Your task to perform on an android device: set the timer Image 0: 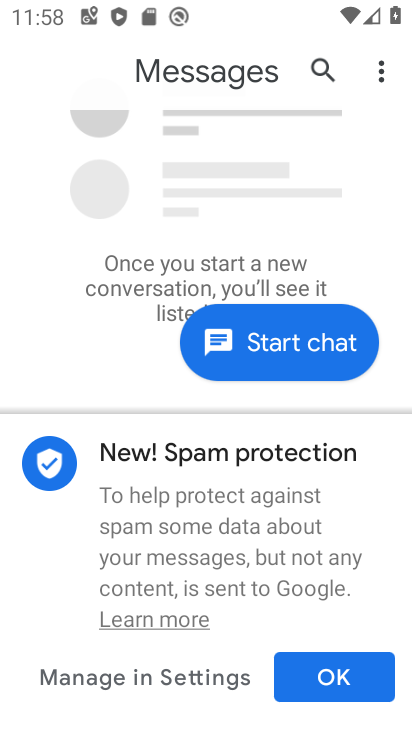
Step 0: press home button
Your task to perform on an android device: set the timer Image 1: 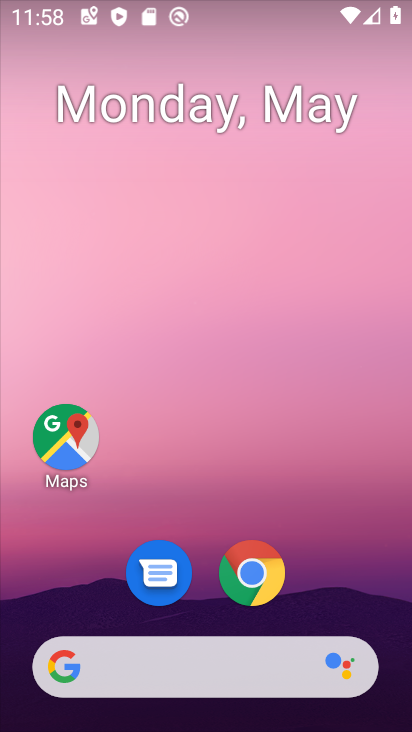
Step 1: drag from (178, 658) to (238, 11)
Your task to perform on an android device: set the timer Image 2: 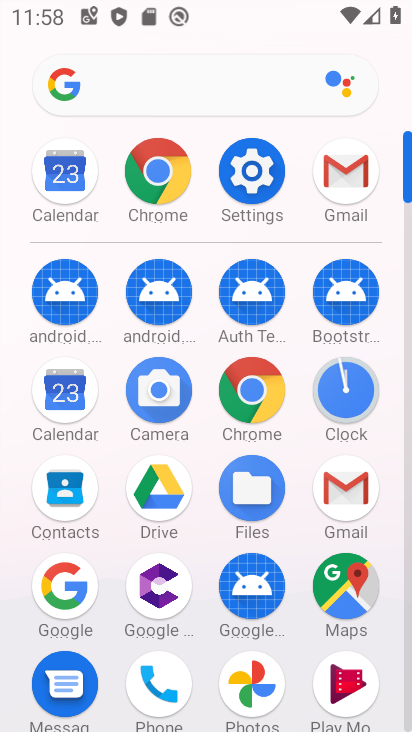
Step 2: click (350, 377)
Your task to perform on an android device: set the timer Image 3: 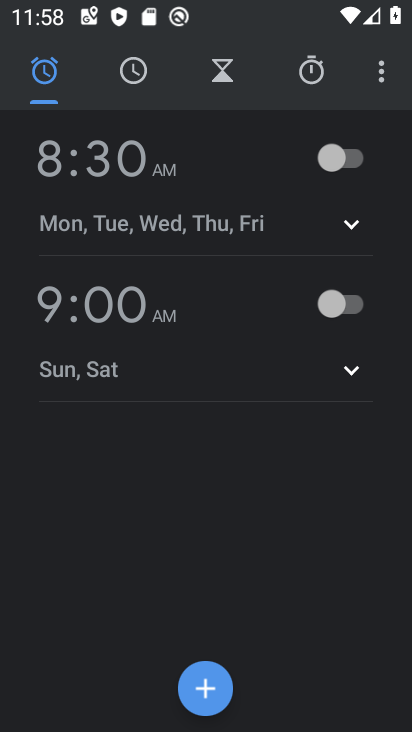
Step 3: click (316, 78)
Your task to perform on an android device: set the timer Image 4: 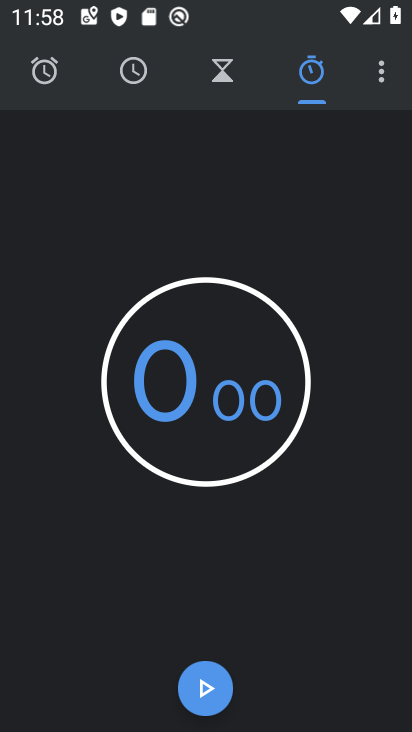
Step 4: click (221, 73)
Your task to perform on an android device: set the timer Image 5: 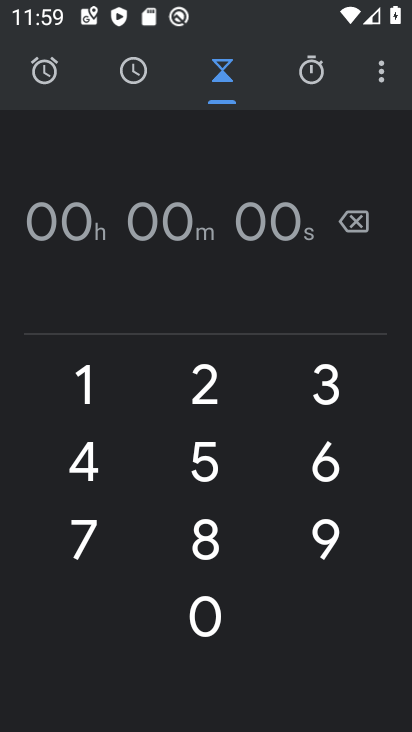
Step 5: click (210, 384)
Your task to perform on an android device: set the timer Image 6: 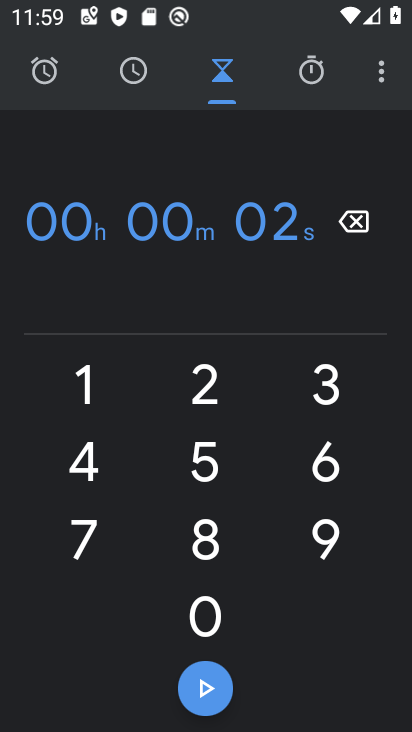
Step 6: click (206, 694)
Your task to perform on an android device: set the timer Image 7: 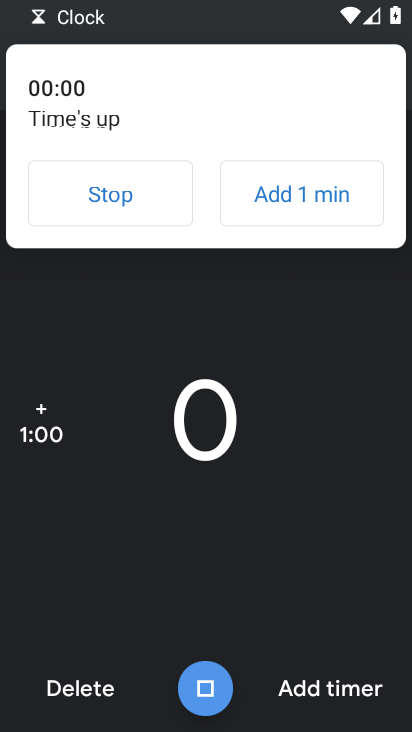
Step 7: task complete